Your task to perform on an android device: turn off data saver in the chrome app Image 0: 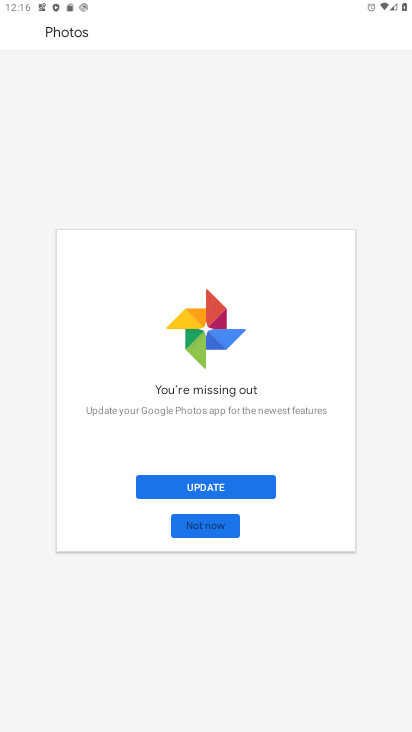
Step 0: press home button
Your task to perform on an android device: turn off data saver in the chrome app Image 1: 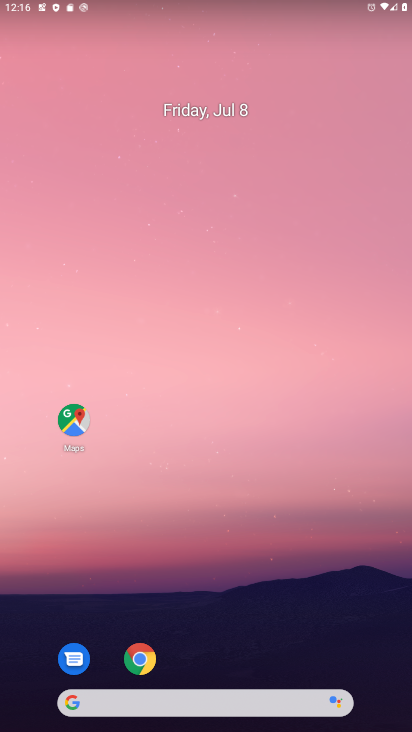
Step 1: click (139, 663)
Your task to perform on an android device: turn off data saver in the chrome app Image 2: 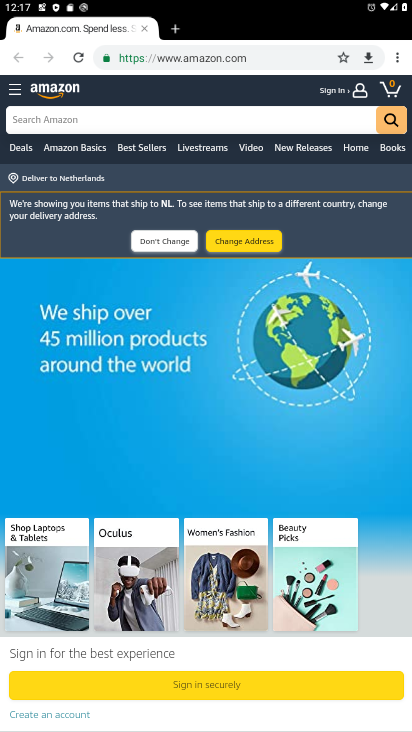
Step 2: click (392, 56)
Your task to perform on an android device: turn off data saver in the chrome app Image 3: 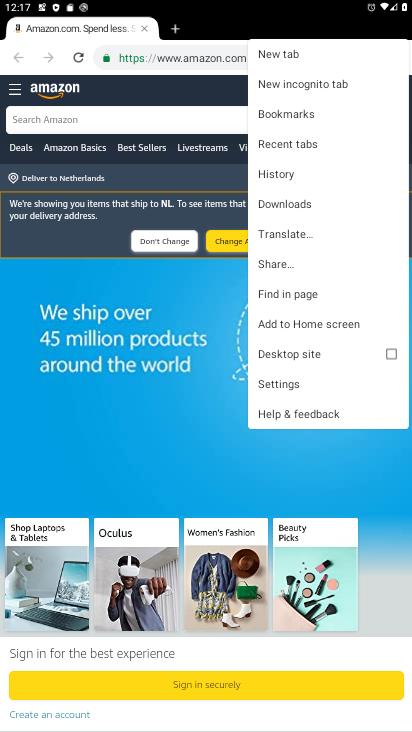
Step 3: click (281, 379)
Your task to perform on an android device: turn off data saver in the chrome app Image 4: 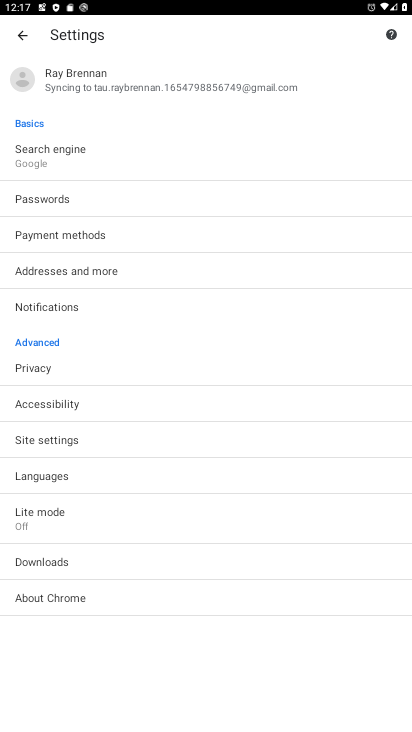
Step 4: click (70, 515)
Your task to perform on an android device: turn off data saver in the chrome app Image 5: 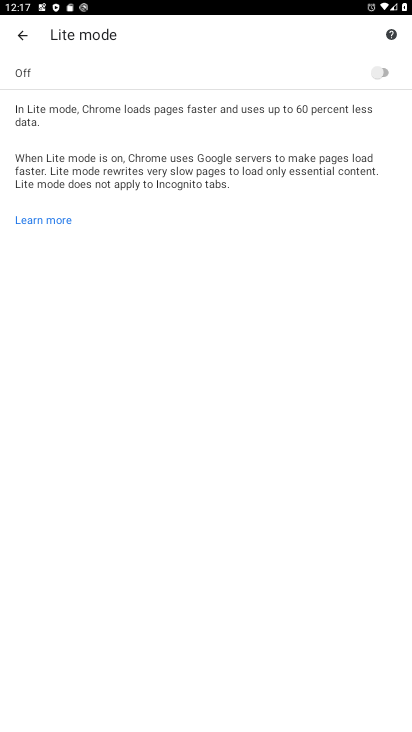
Step 5: task complete